Your task to perform on an android device: check battery use Image 0: 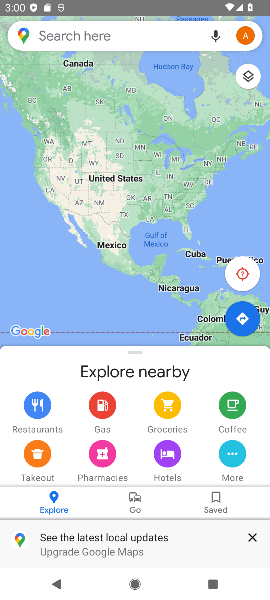
Step 0: press home button
Your task to perform on an android device: check battery use Image 1: 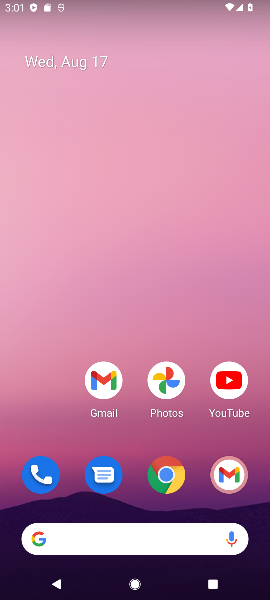
Step 1: drag from (144, 512) to (117, 61)
Your task to perform on an android device: check battery use Image 2: 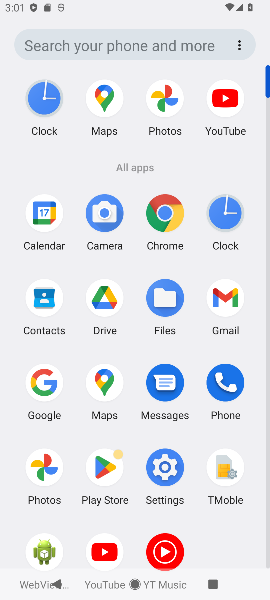
Step 2: click (168, 478)
Your task to perform on an android device: check battery use Image 3: 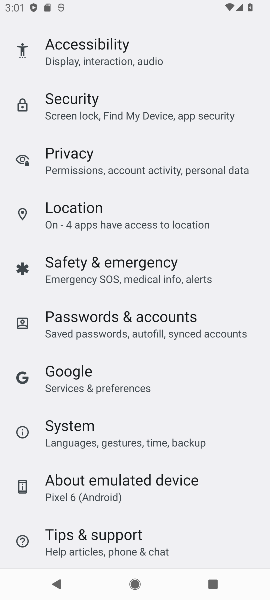
Step 3: drag from (95, 87) to (90, 357)
Your task to perform on an android device: check battery use Image 4: 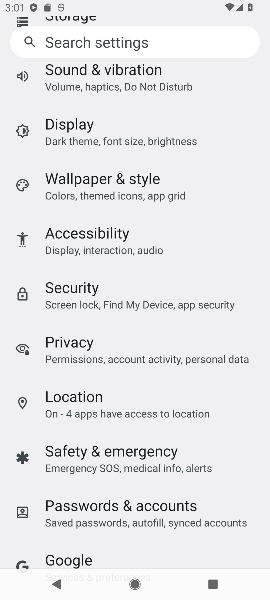
Step 4: drag from (96, 134) to (111, 507)
Your task to perform on an android device: check battery use Image 5: 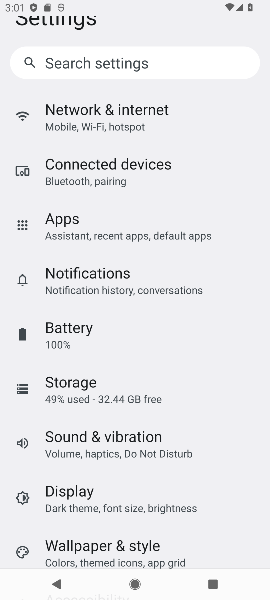
Step 5: click (81, 353)
Your task to perform on an android device: check battery use Image 6: 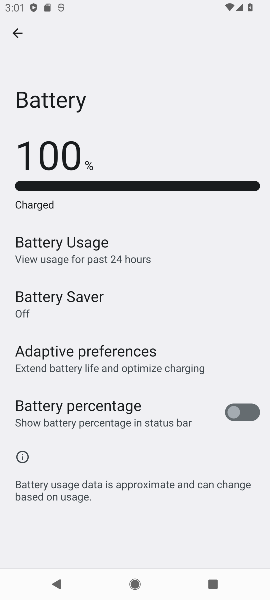
Step 6: click (70, 262)
Your task to perform on an android device: check battery use Image 7: 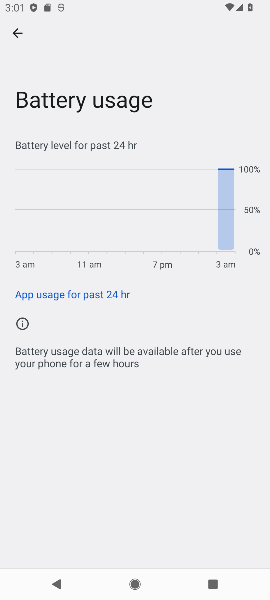
Step 7: task complete